Your task to perform on an android device: turn off data saver in the chrome app Image 0: 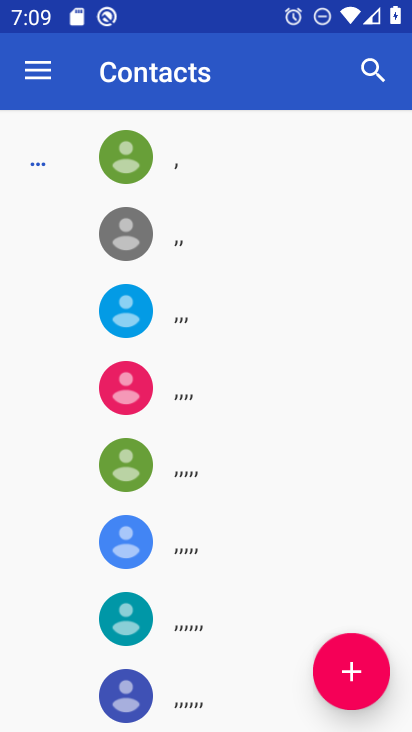
Step 0: press home button
Your task to perform on an android device: turn off data saver in the chrome app Image 1: 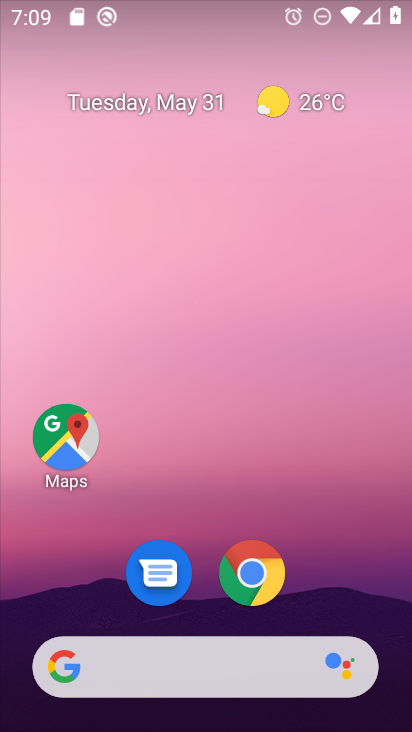
Step 1: drag from (392, 646) to (295, 30)
Your task to perform on an android device: turn off data saver in the chrome app Image 2: 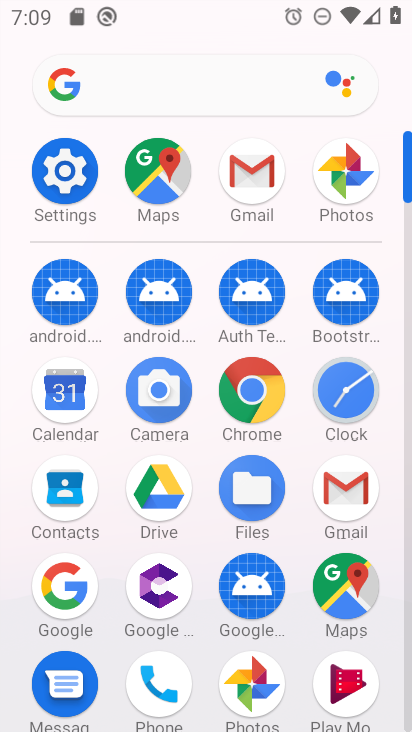
Step 2: click (251, 433)
Your task to perform on an android device: turn off data saver in the chrome app Image 3: 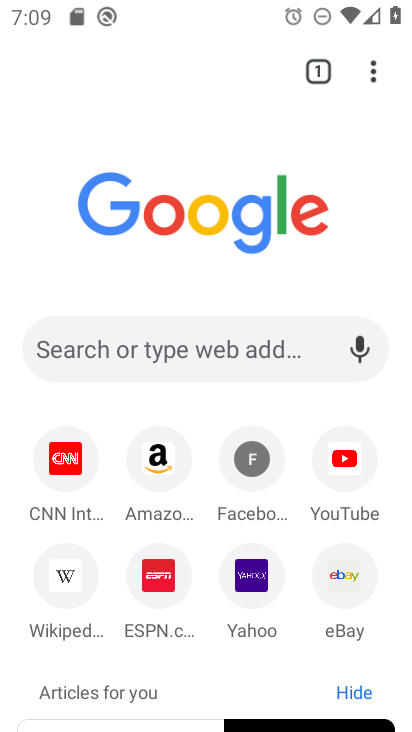
Step 3: click (372, 80)
Your task to perform on an android device: turn off data saver in the chrome app Image 4: 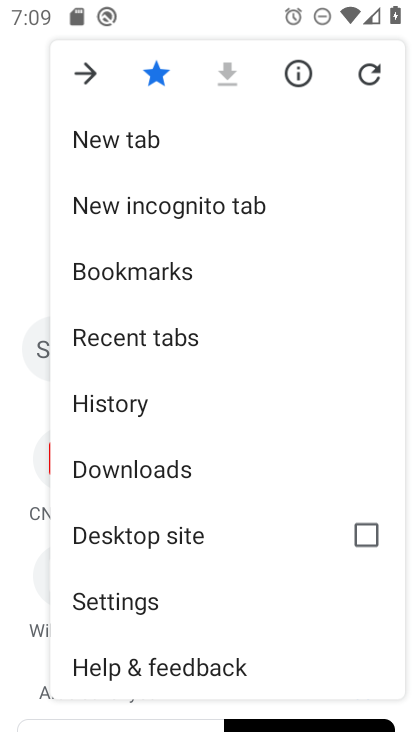
Step 4: click (146, 603)
Your task to perform on an android device: turn off data saver in the chrome app Image 5: 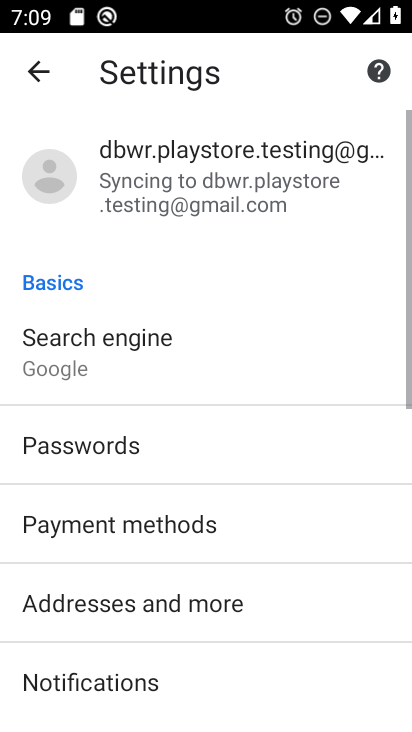
Step 5: drag from (218, 614) to (253, 294)
Your task to perform on an android device: turn off data saver in the chrome app Image 6: 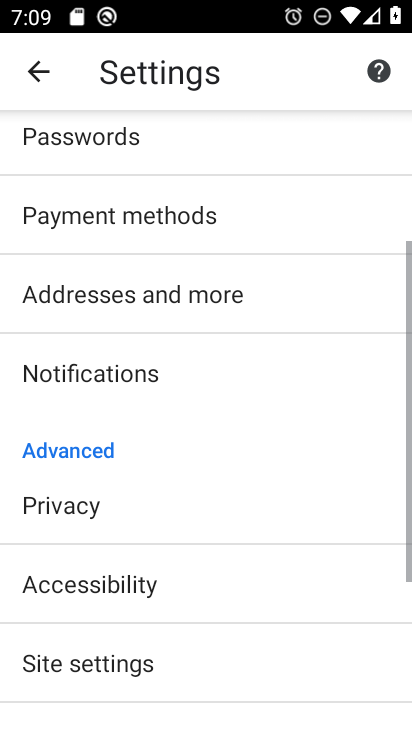
Step 6: click (206, 85)
Your task to perform on an android device: turn off data saver in the chrome app Image 7: 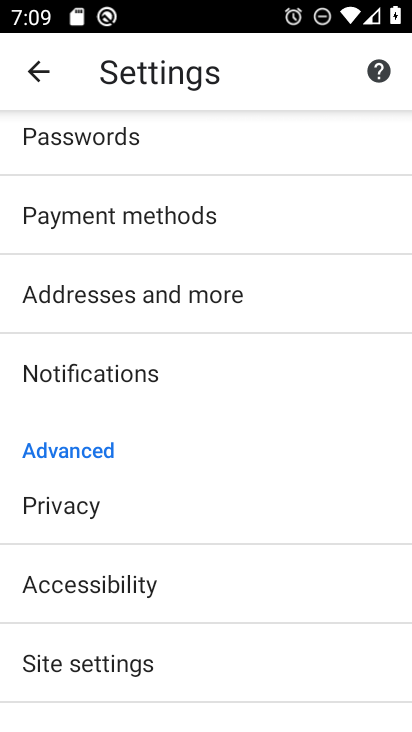
Step 7: drag from (167, 675) to (176, 187)
Your task to perform on an android device: turn off data saver in the chrome app Image 8: 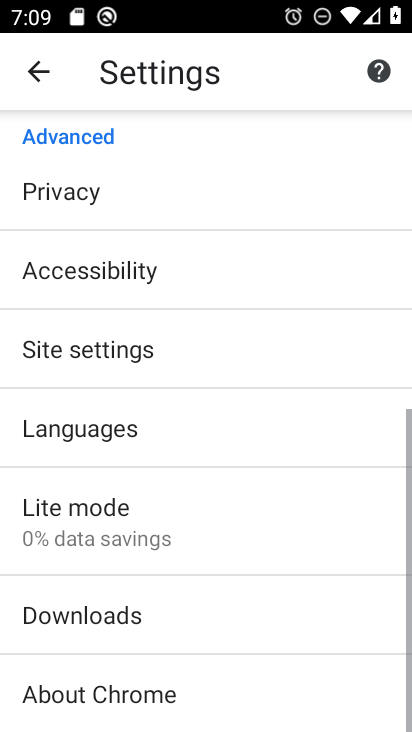
Step 8: click (190, 531)
Your task to perform on an android device: turn off data saver in the chrome app Image 9: 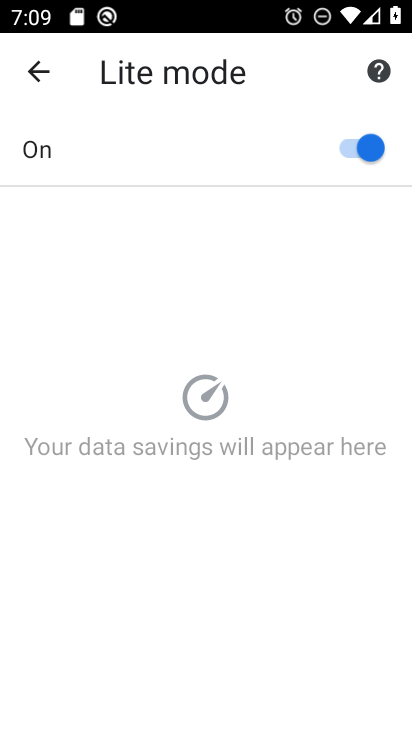
Step 9: click (339, 151)
Your task to perform on an android device: turn off data saver in the chrome app Image 10: 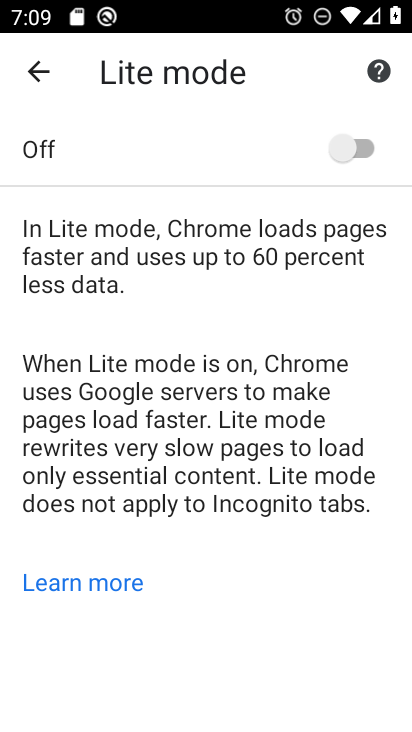
Step 10: task complete